Your task to perform on an android device: uninstall "Google Keep" Image 0: 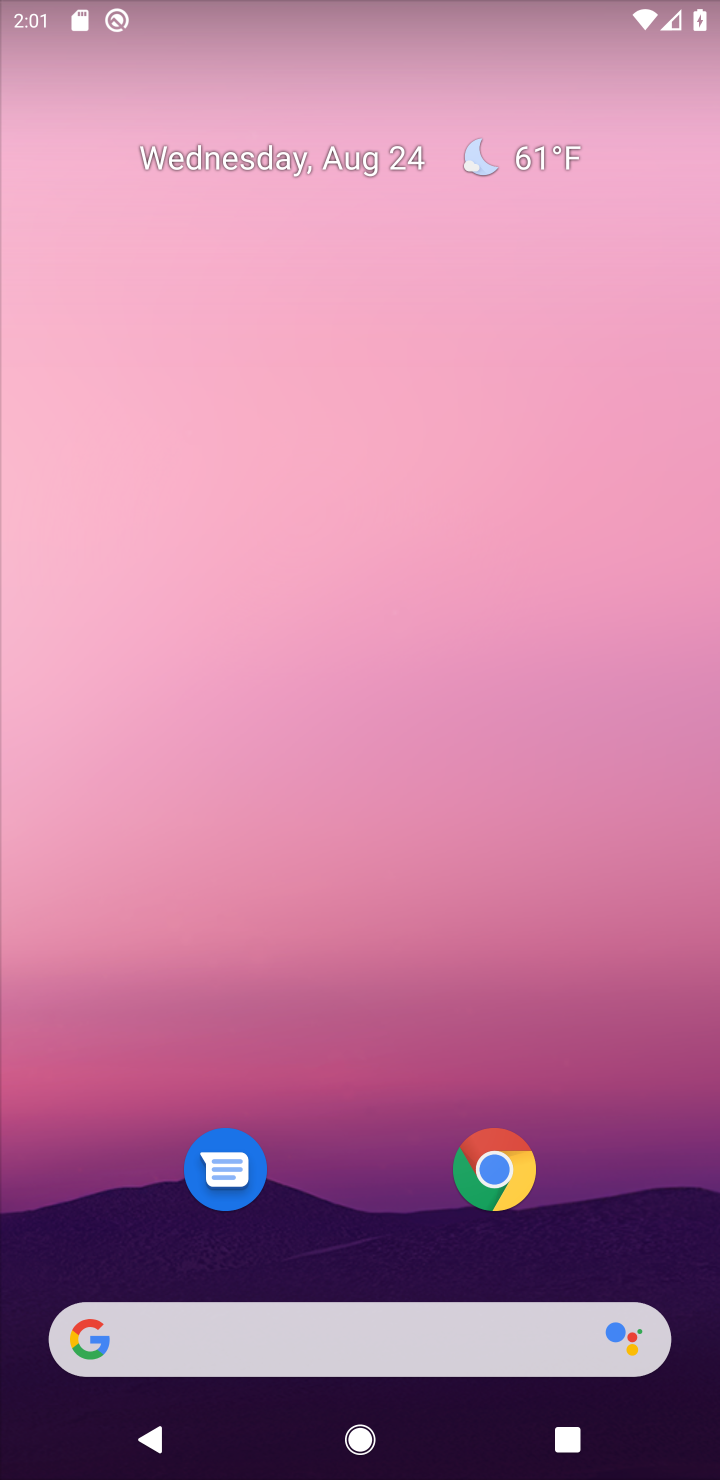
Step 0: drag from (391, 1237) to (258, 265)
Your task to perform on an android device: uninstall "Google Keep" Image 1: 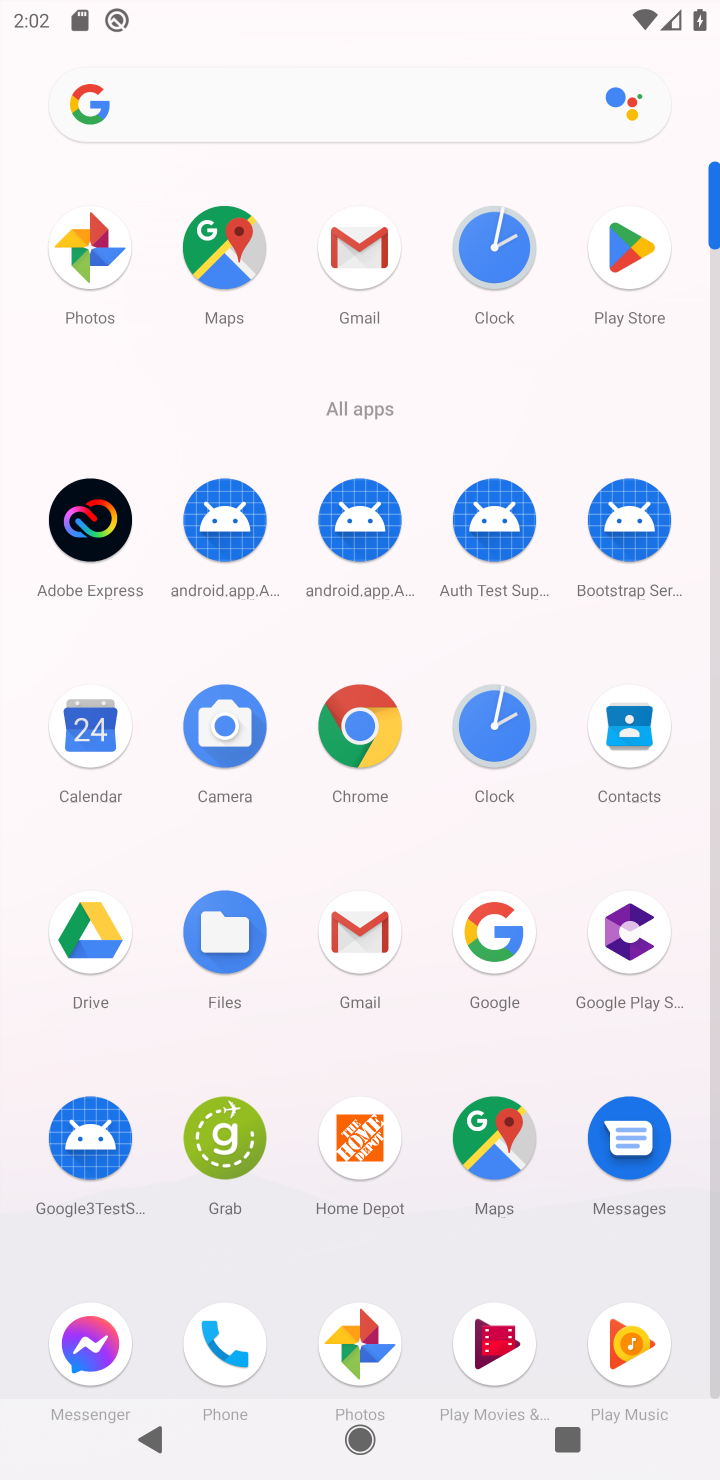
Step 1: click (624, 294)
Your task to perform on an android device: uninstall "Google Keep" Image 2: 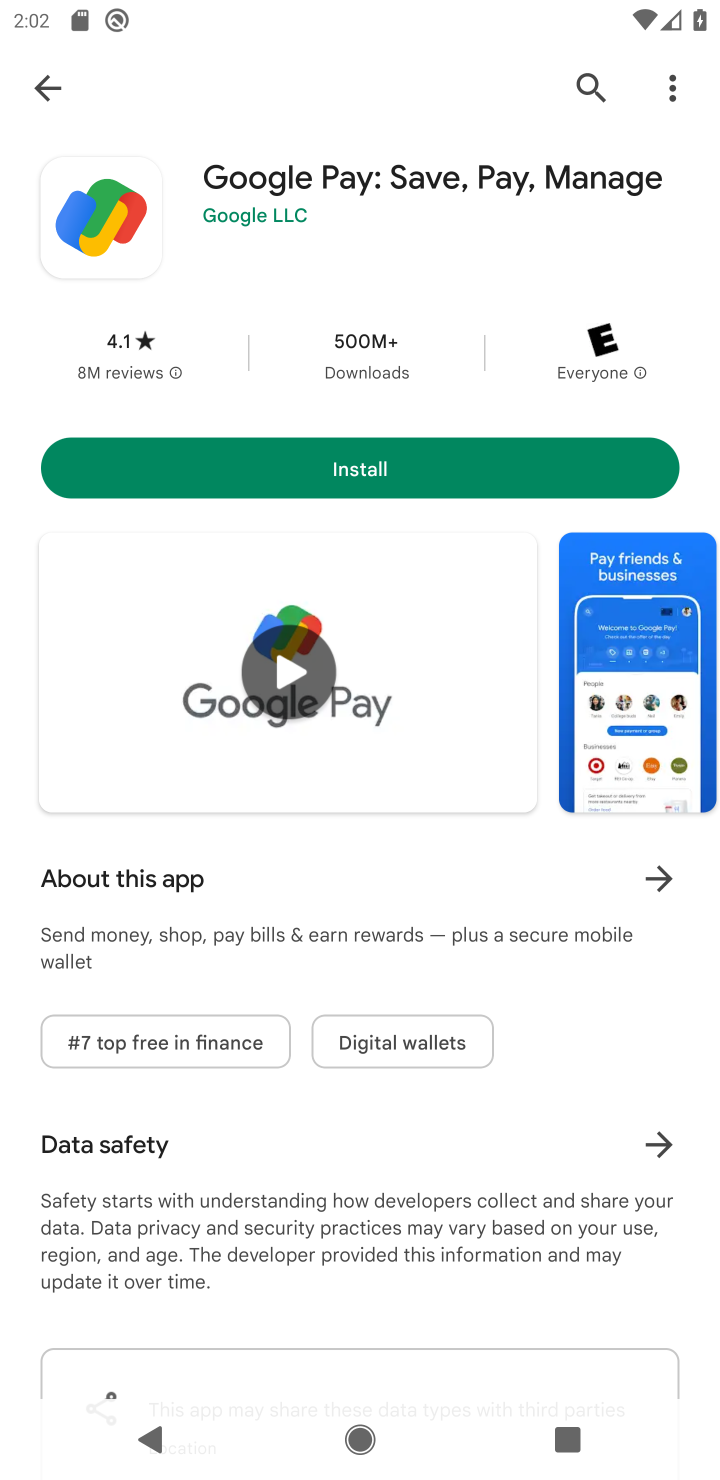
Step 2: click (50, 77)
Your task to perform on an android device: uninstall "Google Keep" Image 3: 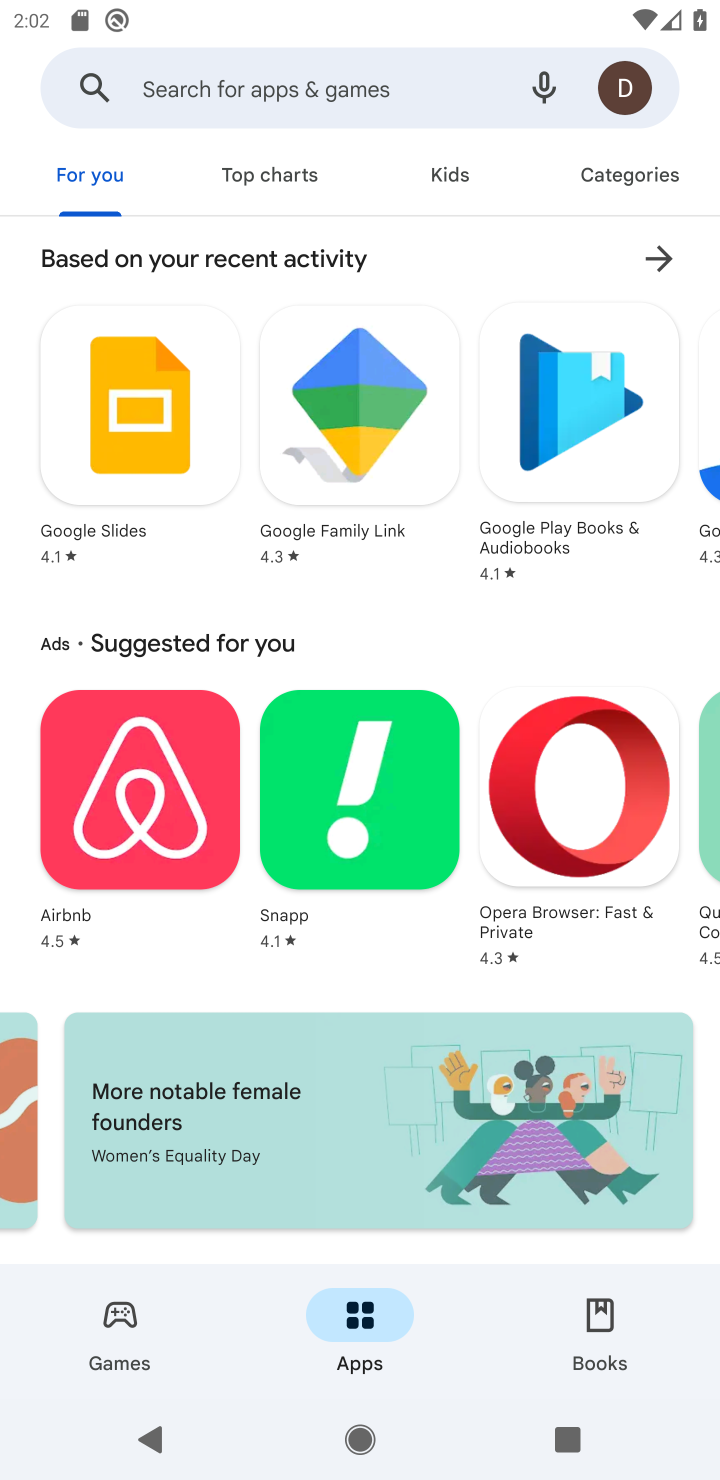
Step 3: click (424, 82)
Your task to perform on an android device: uninstall "Google Keep" Image 4: 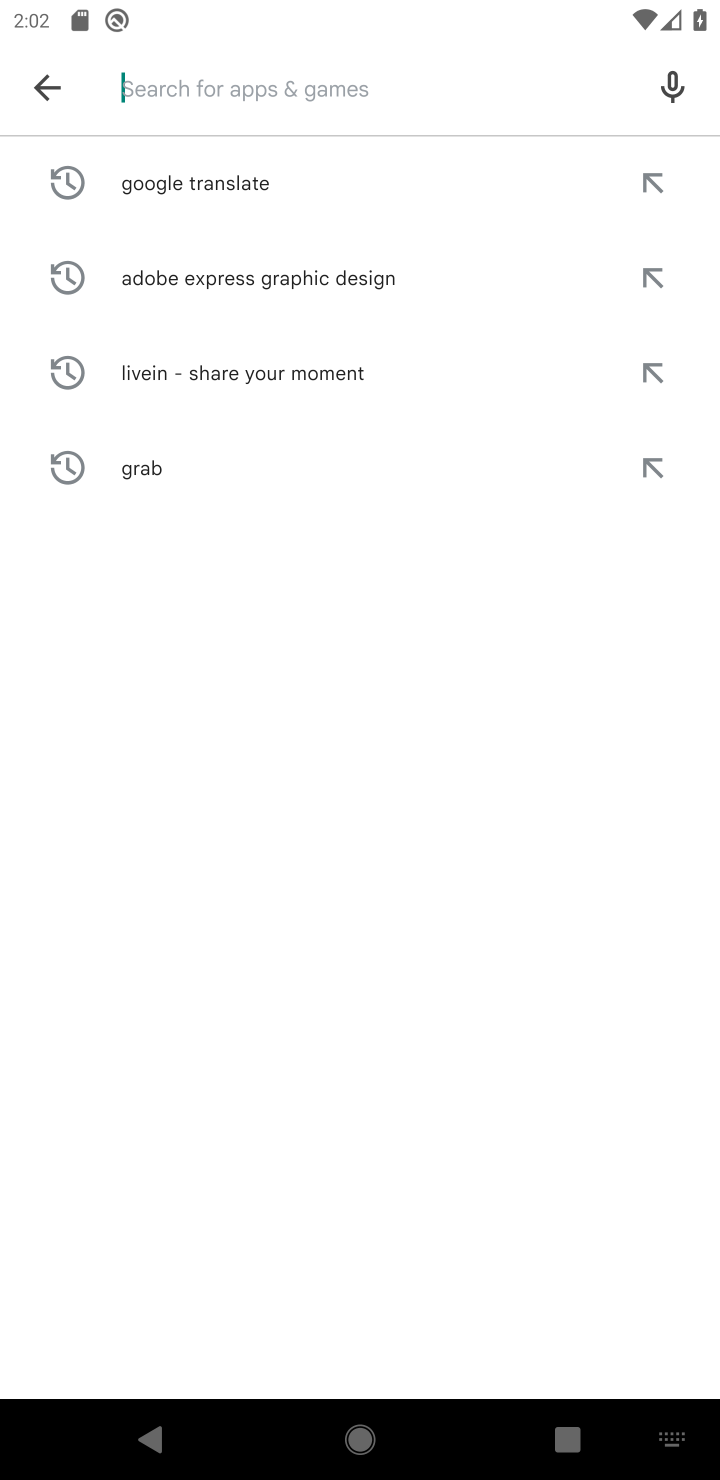
Step 4: type "Google Keep"
Your task to perform on an android device: uninstall "Google Keep" Image 5: 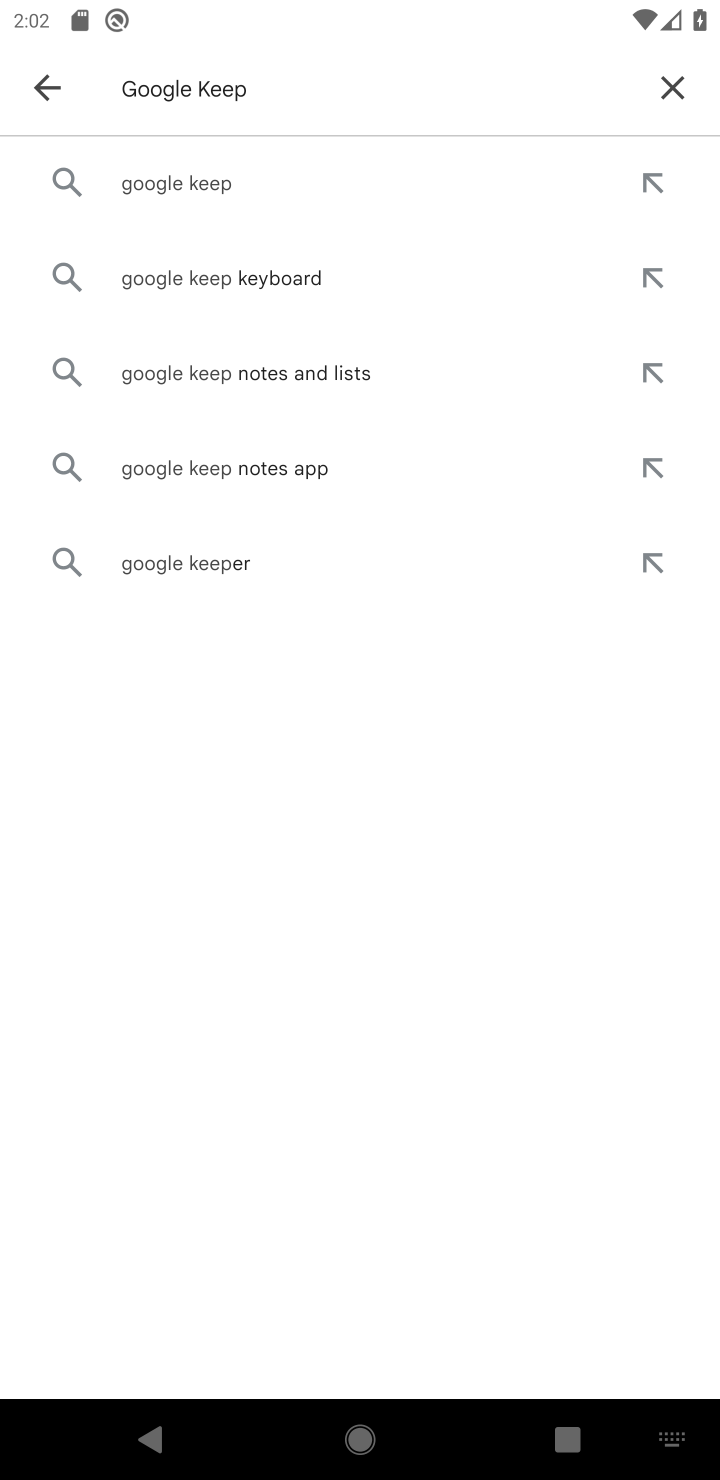
Step 5: click (211, 188)
Your task to perform on an android device: uninstall "Google Keep" Image 6: 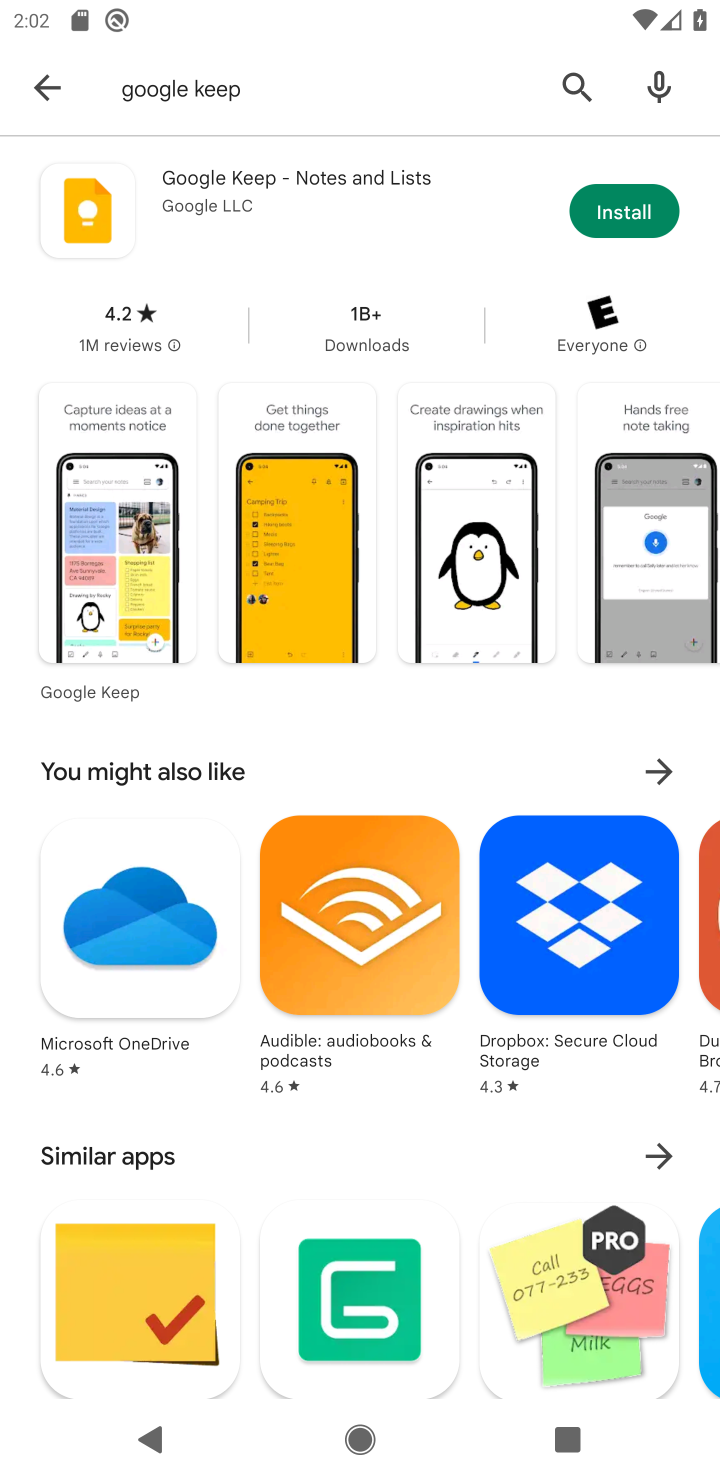
Step 6: click (365, 202)
Your task to perform on an android device: uninstall "Google Keep" Image 7: 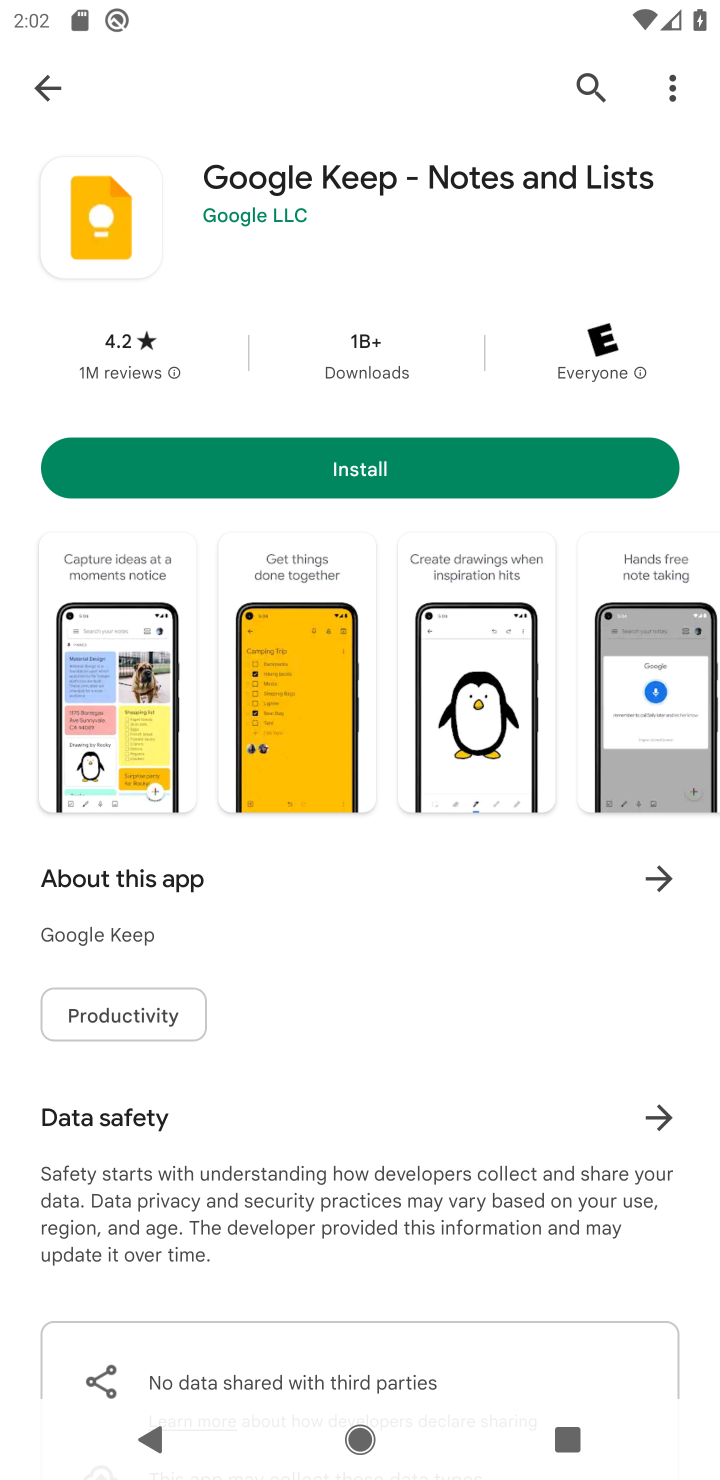
Step 7: task complete